Your task to perform on an android device: Open ESPN.com Image 0: 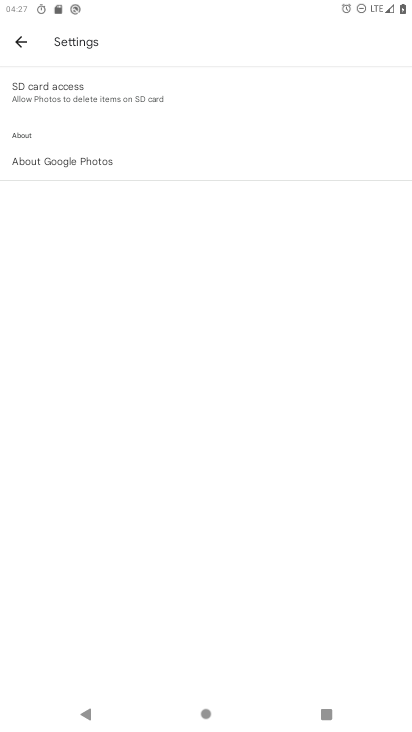
Step 0: press home button
Your task to perform on an android device: Open ESPN.com Image 1: 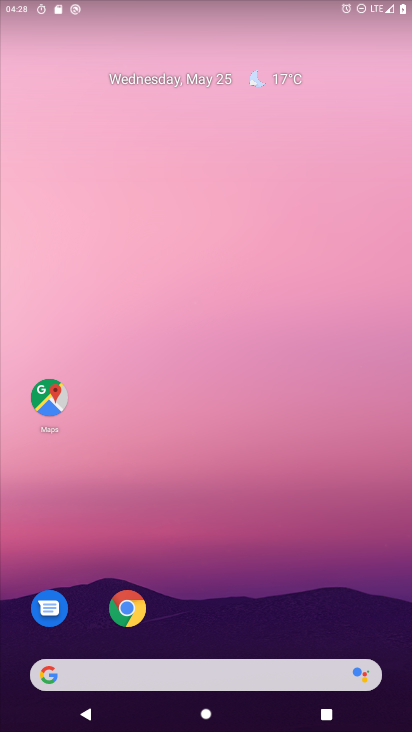
Step 1: click (124, 614)
Your task to perform on an android device: Open ESPN.com Image 2: 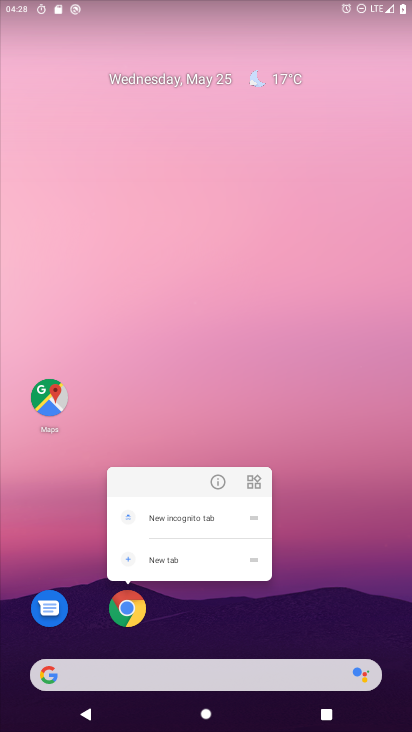
Step 2: click (124, 611)
Your task to perform on an android device: Open ESPN.com Image 3: 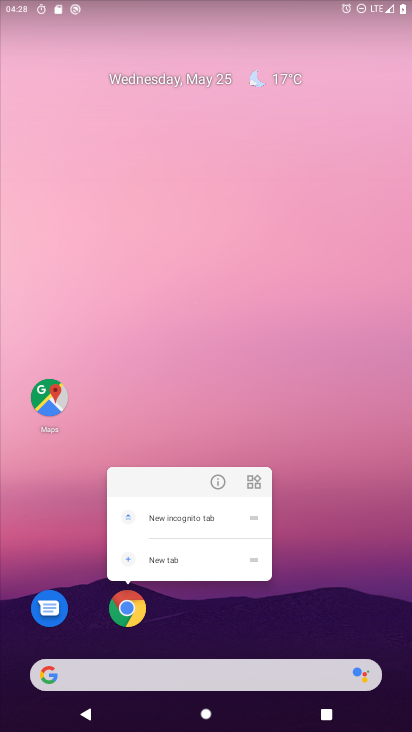
Step 3: click (124, 611)
Your task to perform on an android device: Open ESPN.com Image 4: 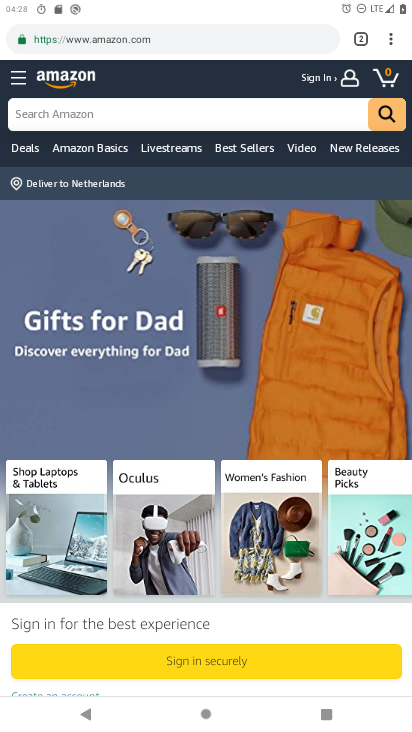
Step 4: click (247, 34)
Your task to perform on an android device: Open ESPN.com Image 5: 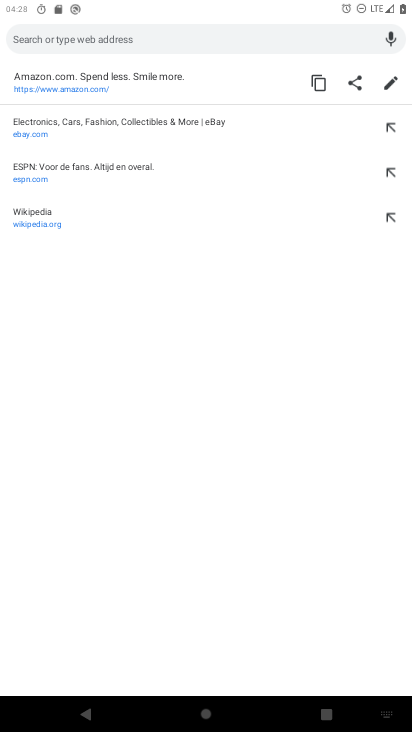
Step 5: click (41, 176)
Your task to perform on an android device: Open ESPN.com Image 6: 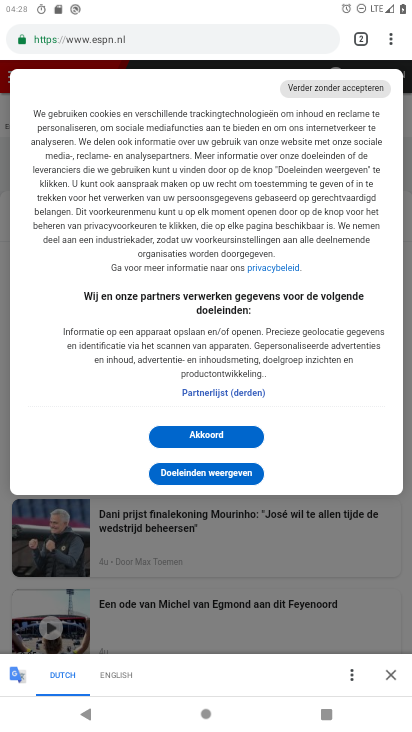
Step 6: task complete